Your task to perform on an android device: Play the latest video from the Wall Street Journal Image 0: 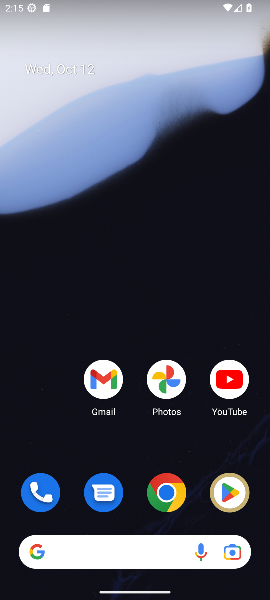
Step 0: click (232, 377)
Your task to perform on an android device: Play the latest video from the Wall Street Journal Image 1: 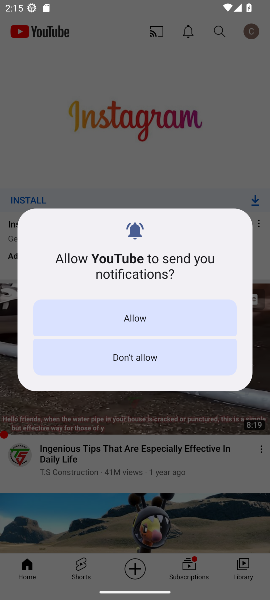
Step 1: click (133, 358)
Your task to perform on an android device: Play the latest video from the Wall Street Journal Image 2: 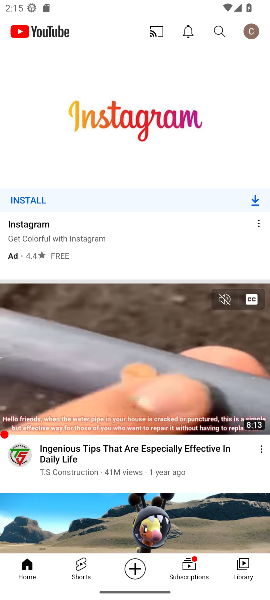
Step 2: click (216, 29)
Your task to perform on an android device: Play the latest video from the Wall Street Journal Image 3: 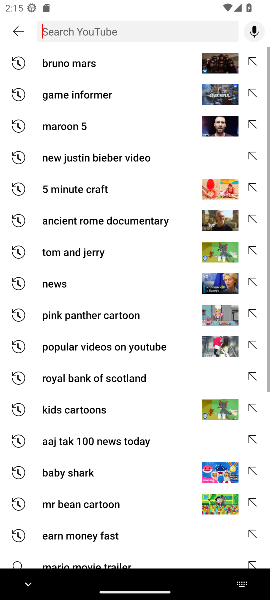
Step 3: click (106, 28)
Your task to perform on an android device: Play the latest video from the Wall Street Journal Image 4: 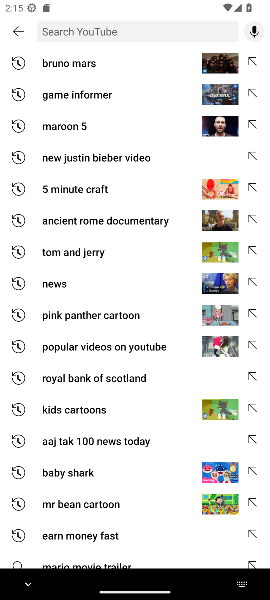
Step 4: type "latest video by  Wall Street Journal"
Your task to perform on an android device: Play the latest video from the Wall Street Journal Image 5: 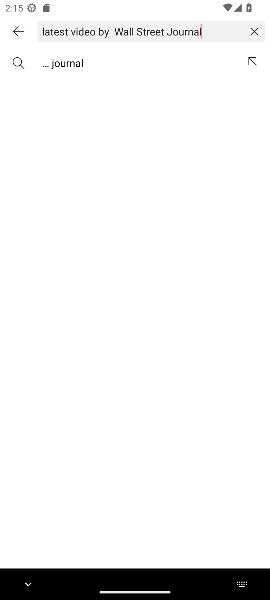
Step 5: click (66, 67)
Your task to perform on an android device: Play the latest video from the Wall Street Journal Image 6: 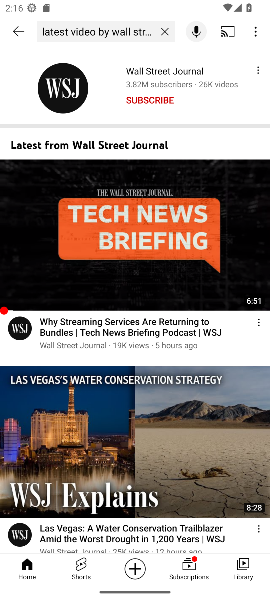
Step 6: click (108, 260)
Your task to perform on an android device: Play the latest video from the Wall Street Journal Image 7: 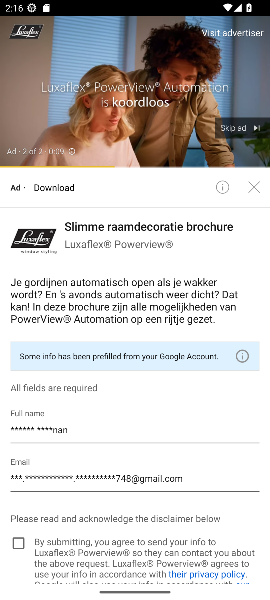
Step 7: click (237, 134)
Your task to perform on an android device: Play the latest video from the Wall Street Journal Image 8: 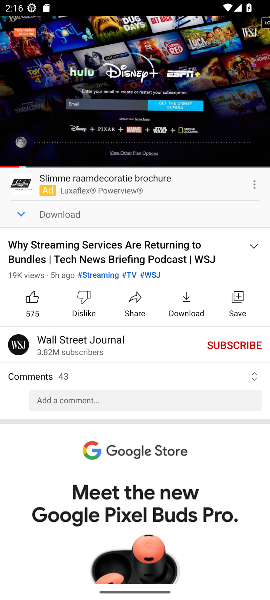
Step 8: click (166, 94)
Your task to perform on an android device: Play the latest video from the Wall Street Journal Image 9: 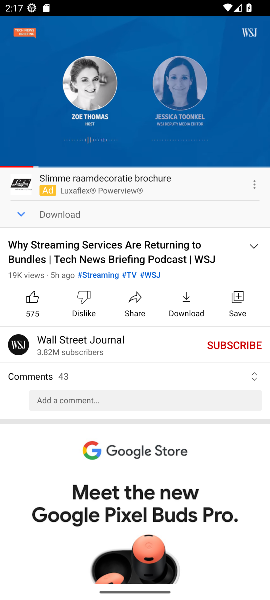
Step 9: click (132, 110)
Your task to perform on an android device: Play the latest video from the Wall Street Journal Image 10: 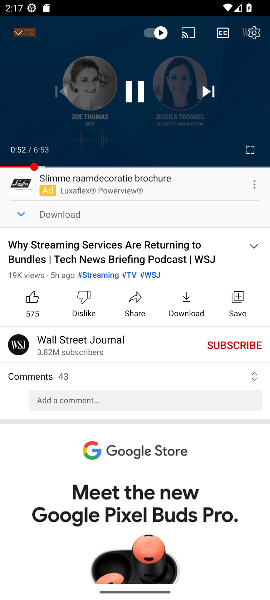
Step 10: click (135, 102)
Your task to perform on an android device: Play the latest video from the Wall Street Journal Image 11: 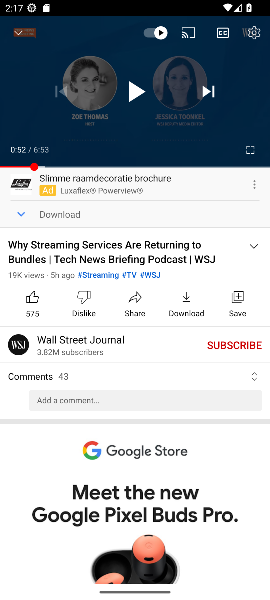
Step 11: task complete